Your task to perform on an android device: read, delete, or share a saved page in the chrome app Image 0: 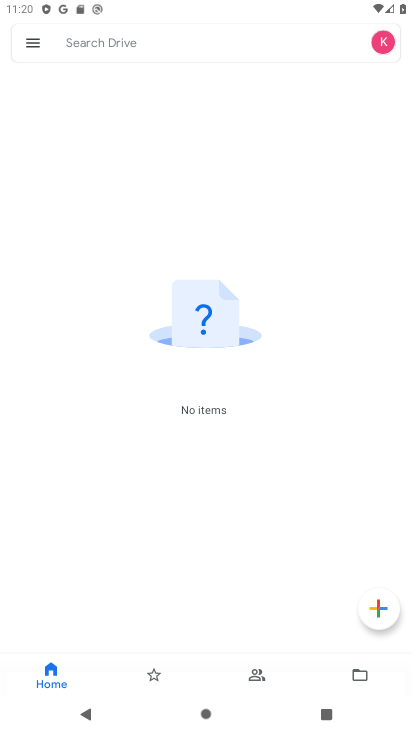
Step 0: press home button
Your task to perform on an android device: read, delete, or share a saved page in the chrome app Image 1: 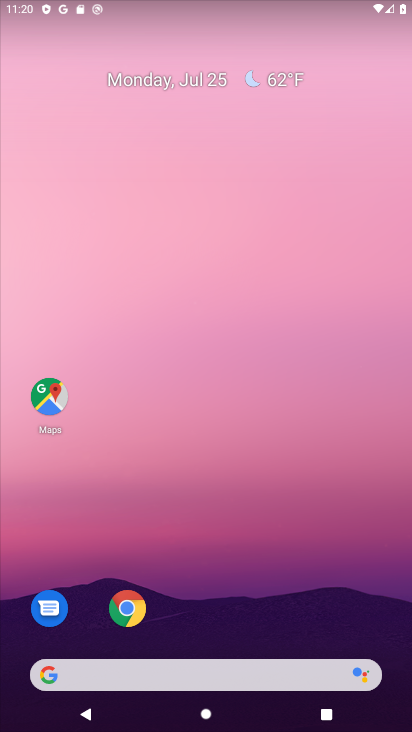
Step 1: click (126, 606)
Your task to perform on an android device: read, delete, or share a saved page in the chrome app Image 2: 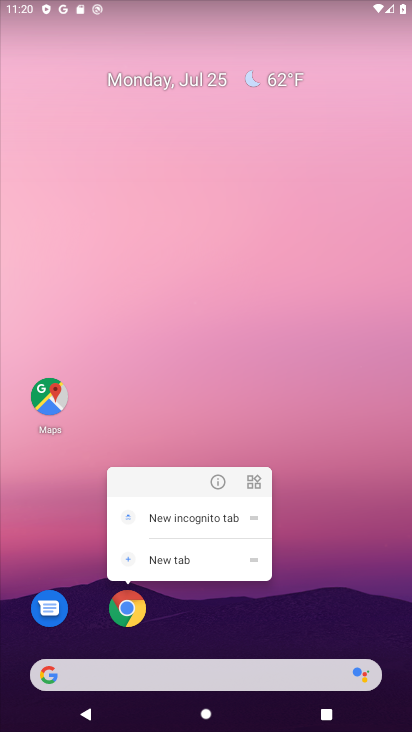
Step 2: click (126, 606)
Your task to perform on an android device: read, delete, or share a saved page in the chrome app Image 3: 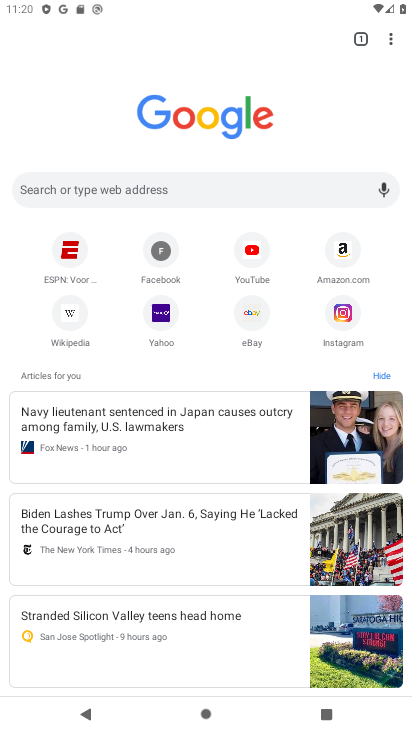
Step 3: click (388, 39)
Your task to perform on an android device: read, delete, or share a saved page in the chrome app Image 4: 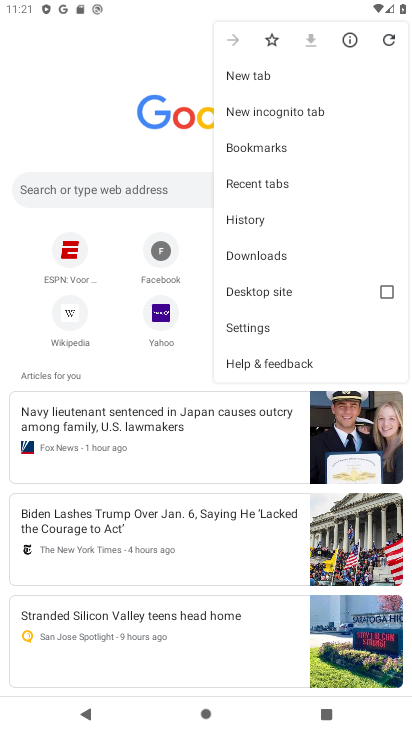
Step 4: task complete